Your task to perform on an android device: Go to settings Image 0: 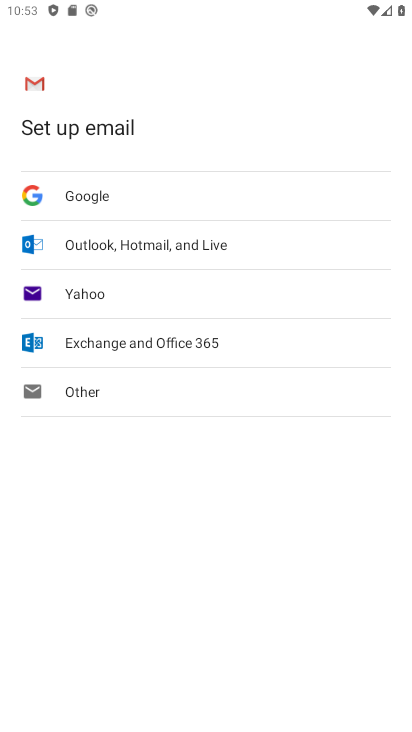
Step 0: press home button
Your task to perform on an android device: Go to settings Image 1: 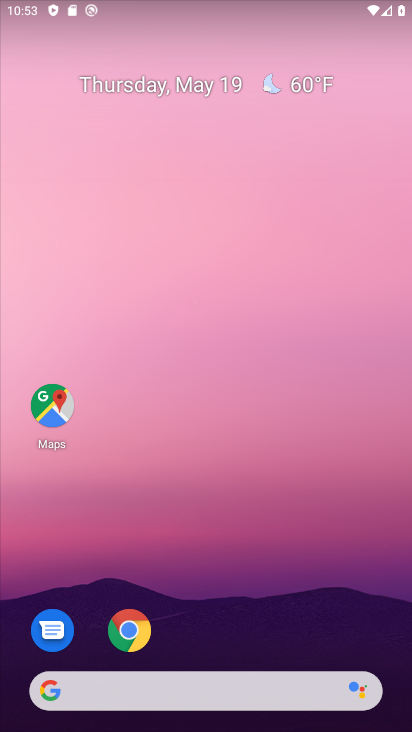
Step 1: drag from (303, 600) to (299, 84)
Your task to perform on an android device: Go to settings Image 2: 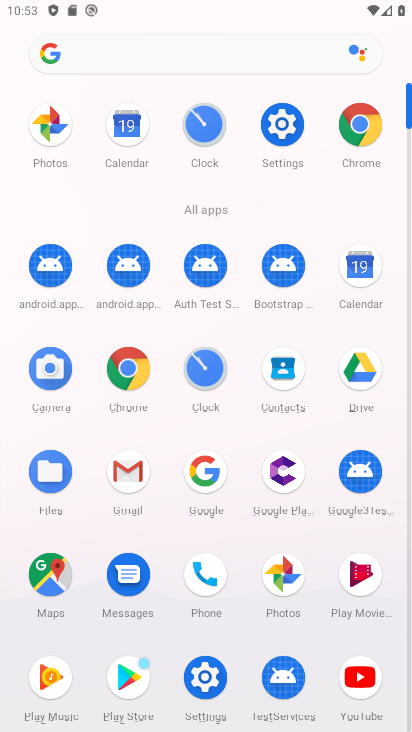
Step 2: click (278, 130)
Your task to perform on an android device: Go to settings Image 3: 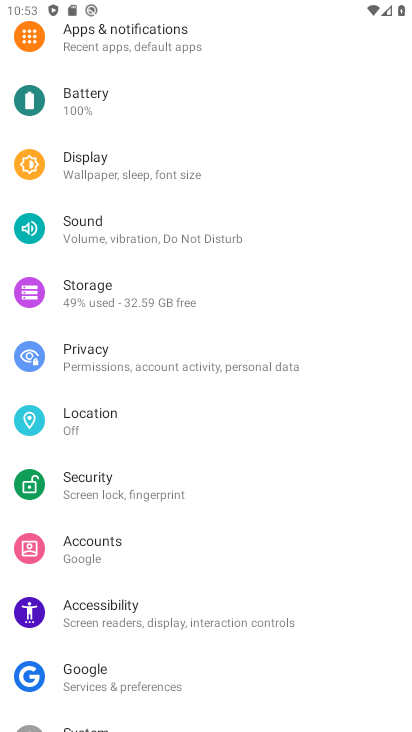
Step 3: task complete